Your task to perform on an android device: toggle priority inbox in the gmail app Image 0: 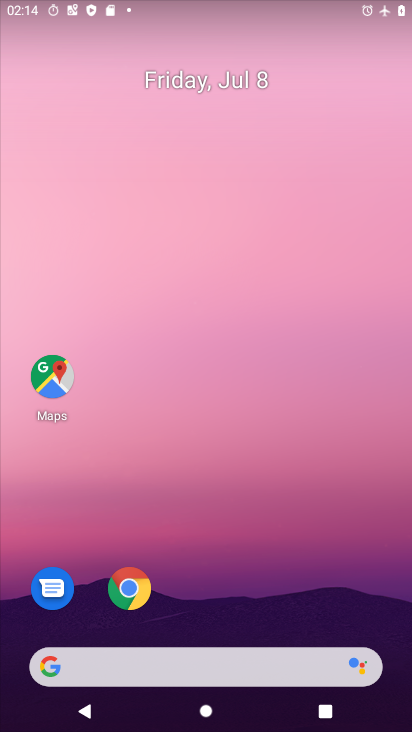
Step 0: click (238, 140)
Your task to perform on an android device: toggle priority inbox in the gmail app Image 1: 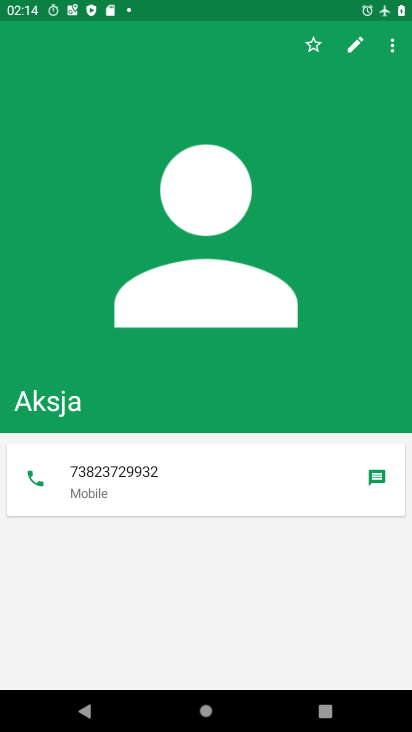
Step 1: press home button
Your task to perform on an android device: toggle priority inbox in the gmail app Image 2: 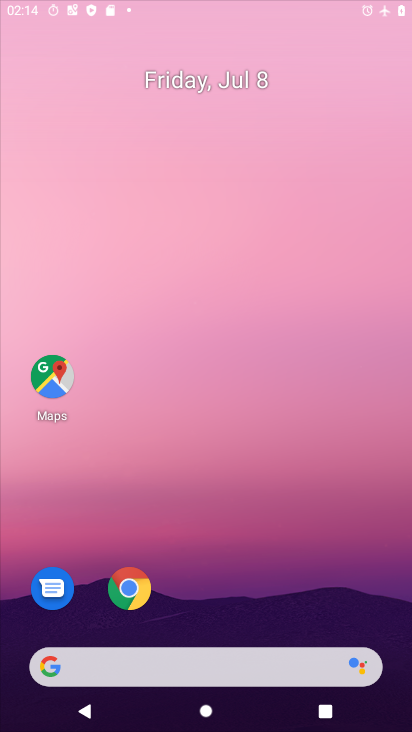
Step 2: drag from (232, 658) to (245, 207)
Your task to perform on an android device: toggle priority inbox in the gmail app Image 3: 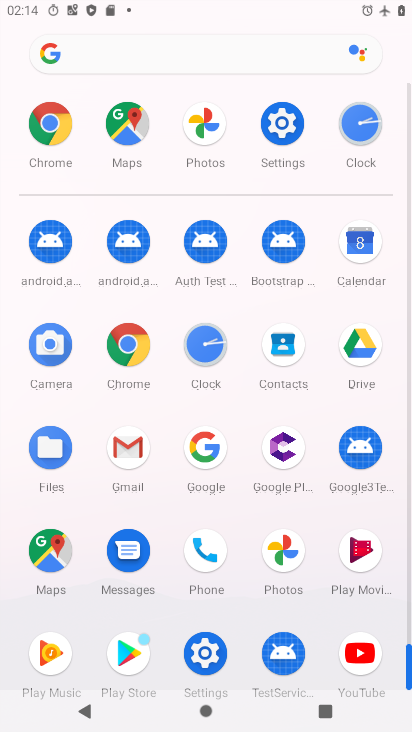
Step 3: click (127, 453)
Your task to perform on an android device: toggle priority inbox in the gmail app Image 4: 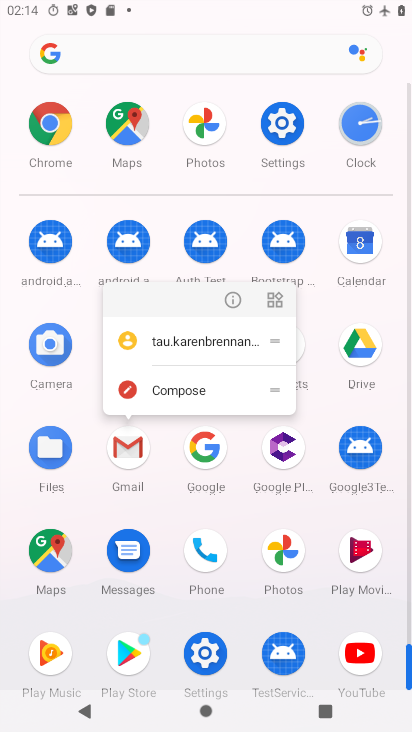
Step 4: click (232, 300)
Your task to perform on an android device: toggle priority inbox in the gmail app Image 5: 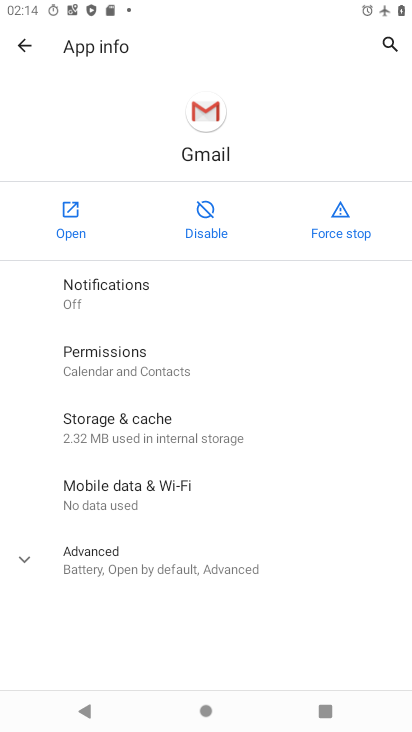
Step 5: click (80, 210)
Your task to perform on an android device: toggle priority inbox in the gmail app Image 6: 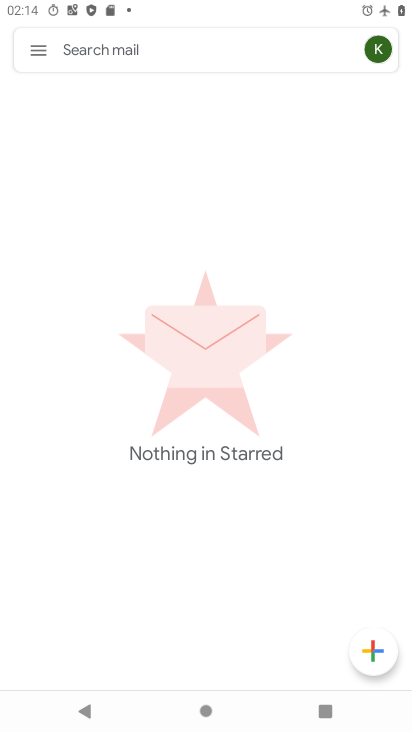
Step 6: click (40, 48)
Your task to perform on an android device: toggle priority inbox in the gmail app Image 7: 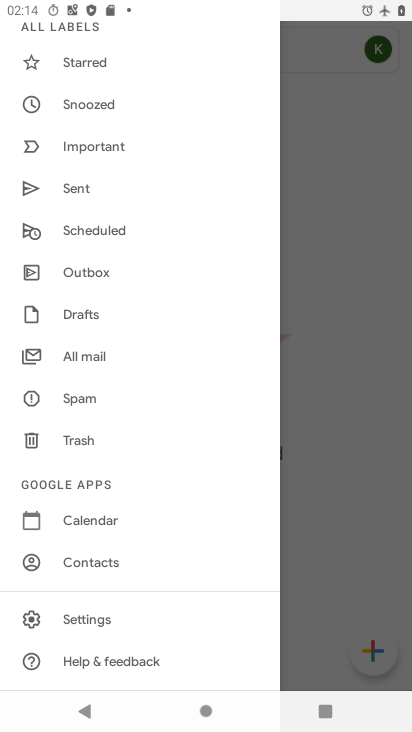
Step 7: click (148, 621)
Your task to perform on an android device: toggle priority inbox in the gmail app Image 8: 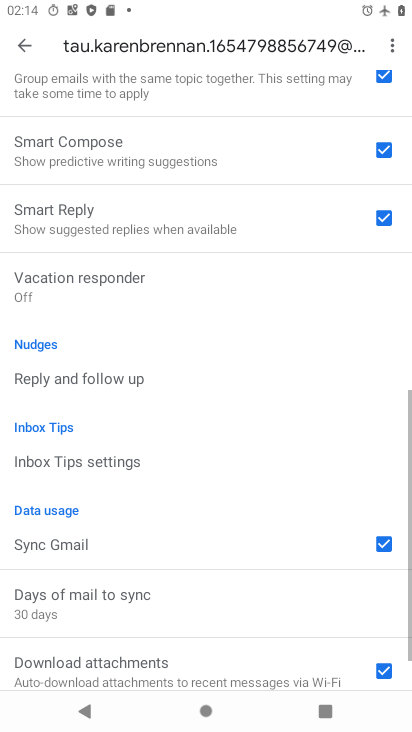
Step 8: drag from (215, 513) to (240, 195)
Your task to perform on an android device: toggle priority inbox in the gmail app Image 9: 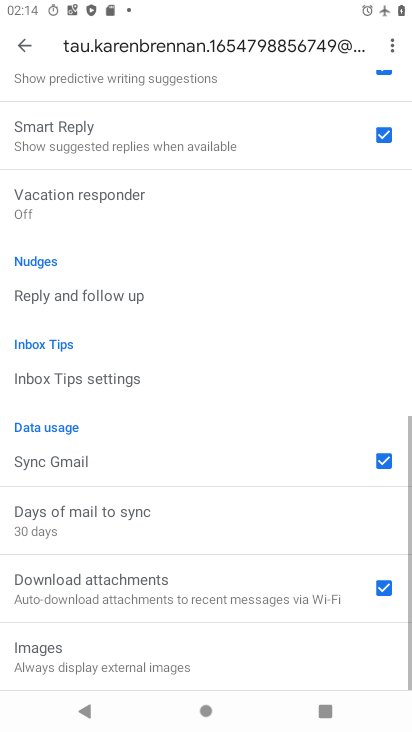
Step 9: drag from (232, 193) to (271, 642)
Your task to perform on an android device: toggle priority inbox in the gmail app Image 10: 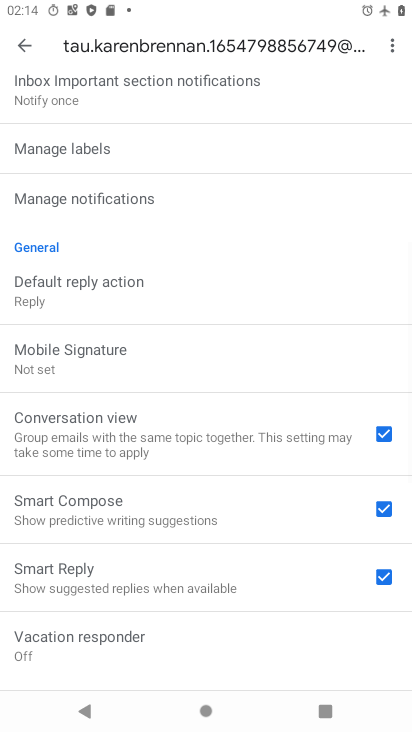
Step 10: drag from (246, 215) to (308, 725)
Your task to perform on an android device: toggle priority inbox in the gmail app Image 11: 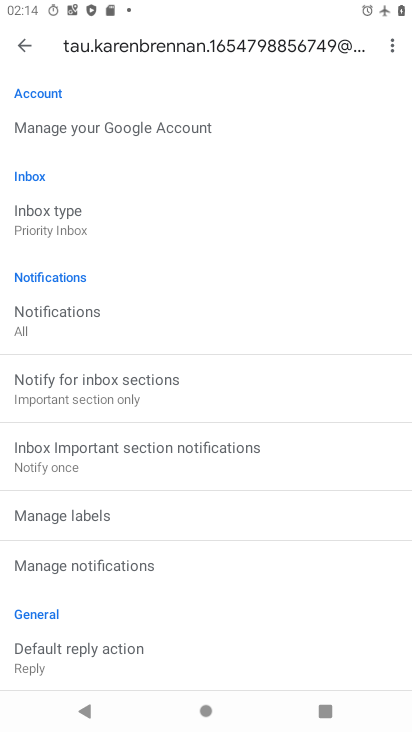
Step 11: click (74, 205)
Your task to perform on an android device: toggle priority inbox in the gmail app Image 12: 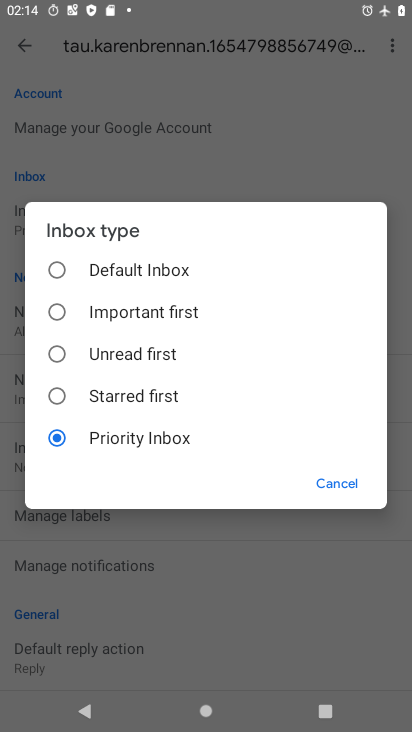
Step 12: click (64, 270)
Your task to perform on an android device: toggle priority inbox in the gmail app Image 13: 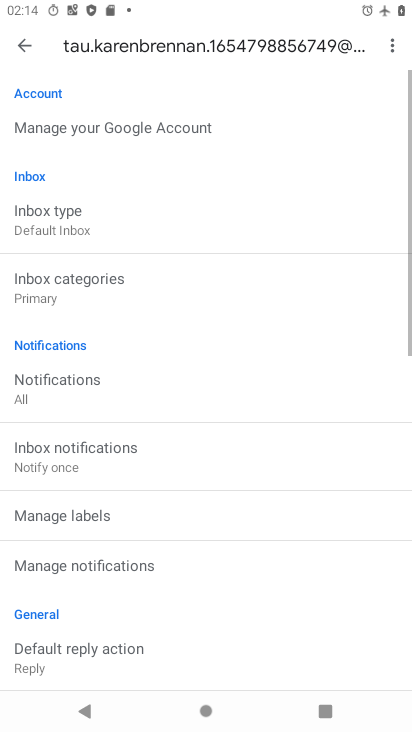
Step 13: task complete